Your task to perform on an android device: Open wifi settings Image 0: 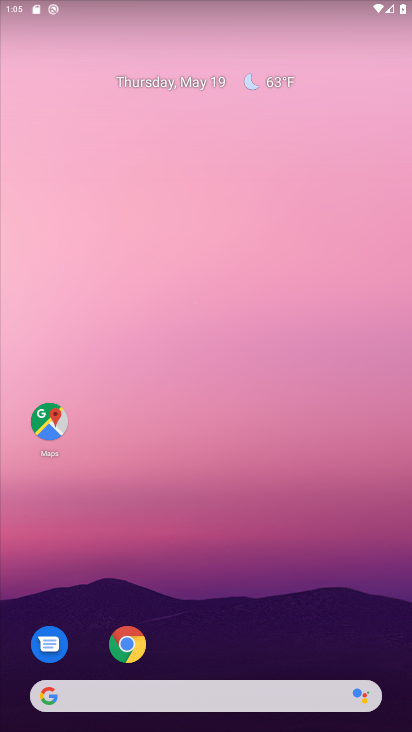
Step 0: drag from (203, 652) to (290, 327)
Your task to perform on an android device: Open wifi settings Image 1: 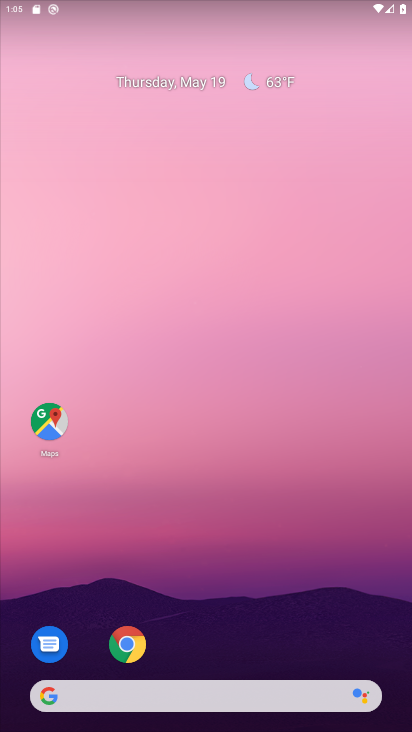
Step 1: drag from (257, 387) to (306, 237)
Your task to perform on an android device: Open wifi settings Image 2: 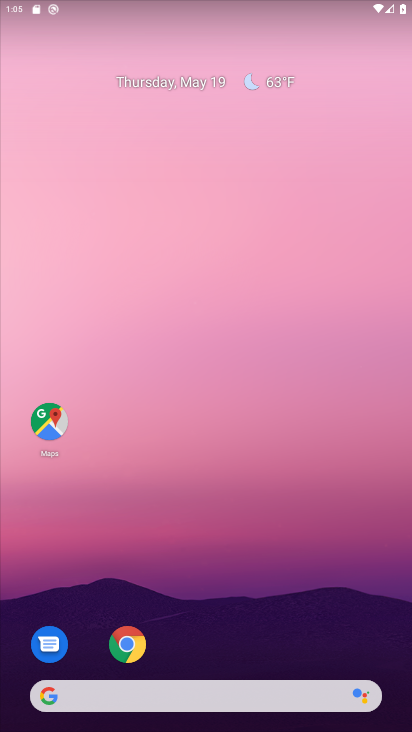
Step 2: drag from (225, 646) to (286, 323)
Your task to perform on an android device: Open wifi settings Image 3: 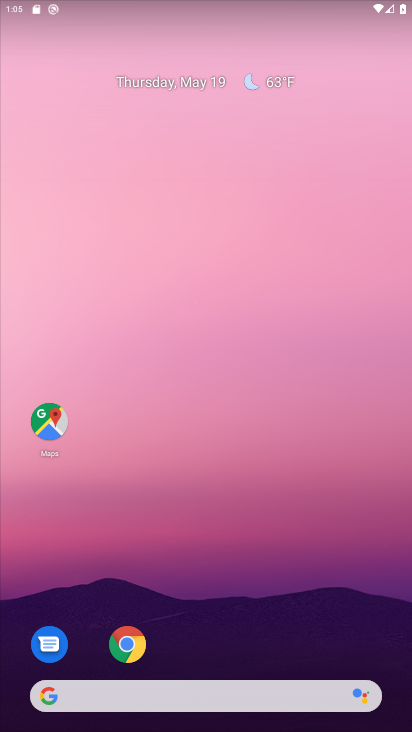
Step 3: drag from (174, 665) to (240, 206)
Your task to perform on an android device: Open wifi settings Image 4: 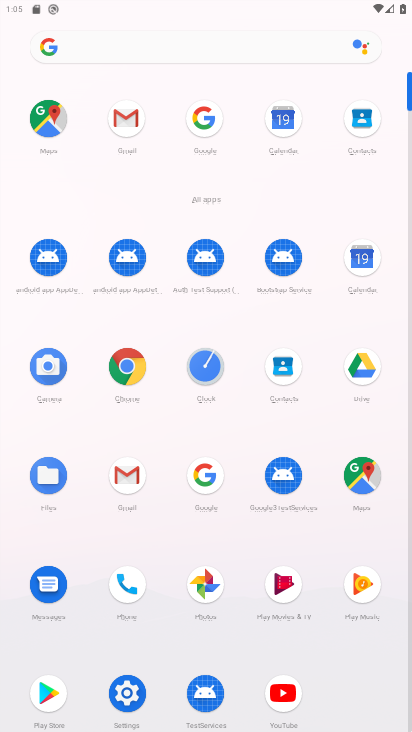
Step 4: click (130, 689)
Your task to perform on an android device: Open wifi settings Image 5: 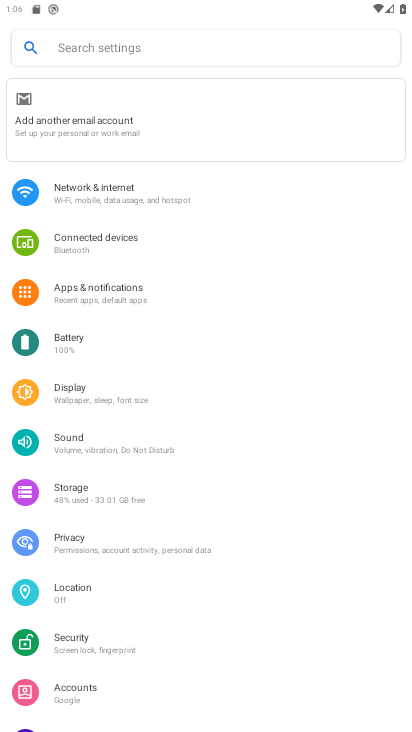
Step 5: click (119, 195)
Your task to perform on an android device: Open wifi settings Image 6: 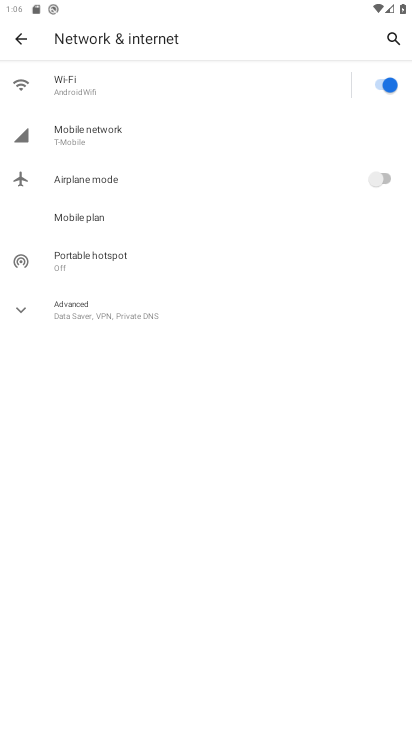
Step 6: click (115, 91)
Your task to perform on an android device: Open wifi settings Image 7: 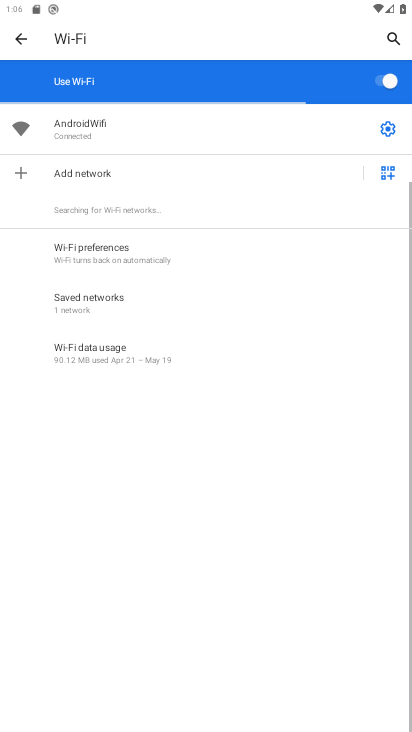
Step 7: task complete